Your task to perform on an android device: open a new tab in the chrome app Image 0: 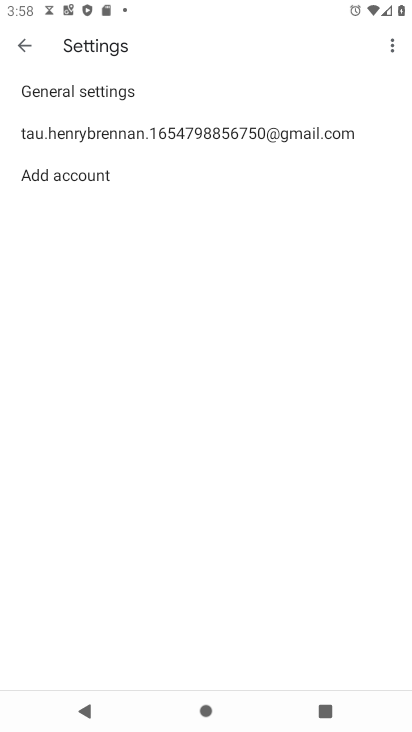
Step 0: press home button
Your task to perform on an android device: open a new tab in the chrome app Image 1: 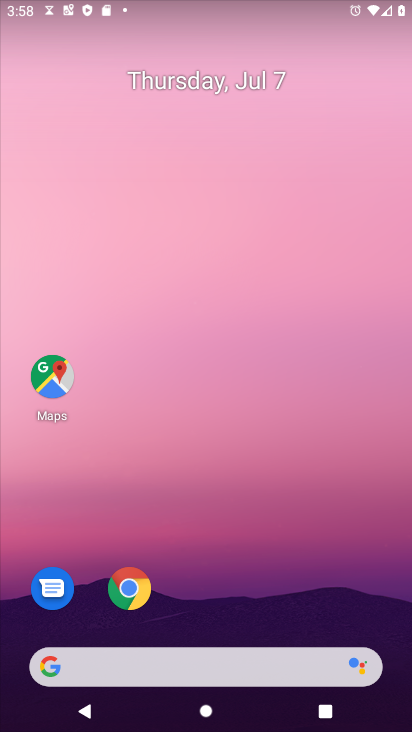
Step 1: click (129, 586)
Your task to perform on an android device: open a new tab in the chrome app Image 2: 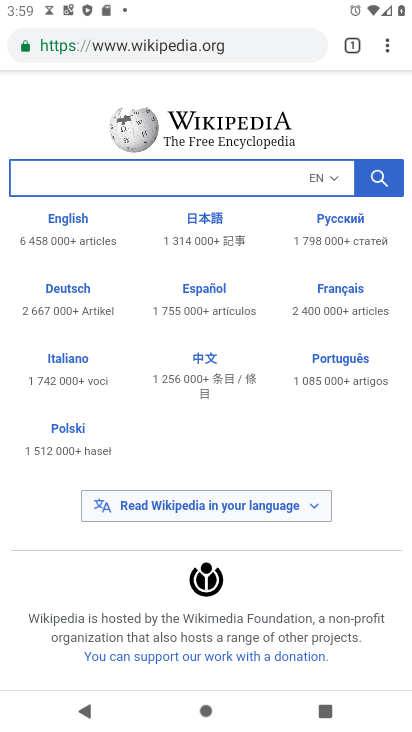
Step 2: click (386, 43)
Your task to perform on an android device: open a new tab in the chrome app Image 3: 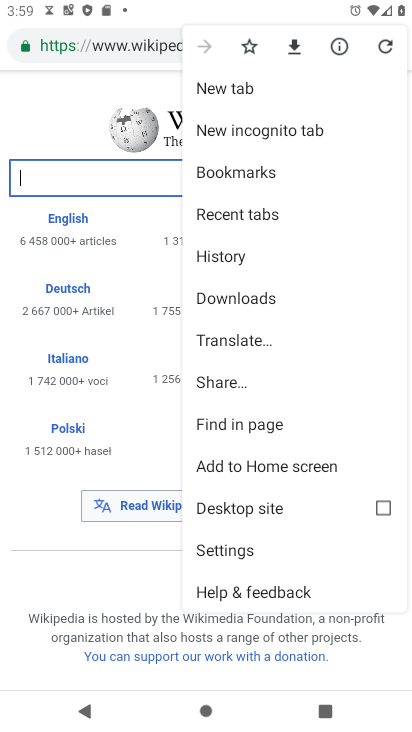
Step 3: click (237, 90)
Your task to perform on an android device: open a new tab in the chrome app Image 4: 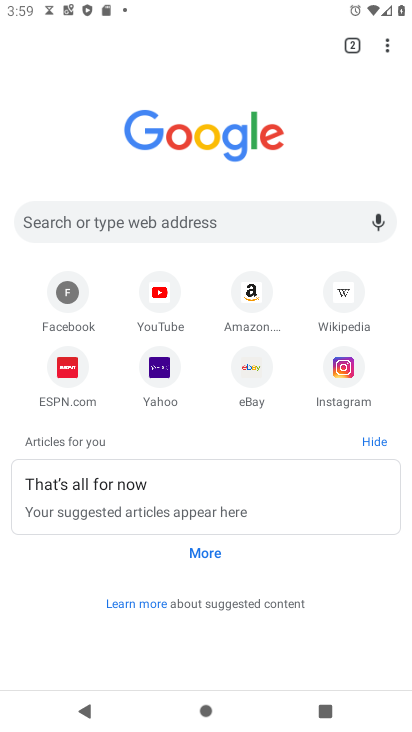
Step 4: task complete